Your task to perform on an android device: Open accessibility settings Image 0: 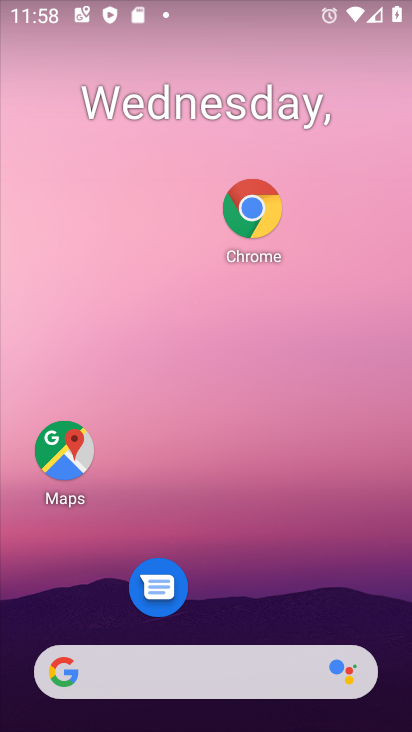
Step 0: drag from (232, 619) to (219, 9)
Your task to perform on an android device: Open accessibility settings Image 1: 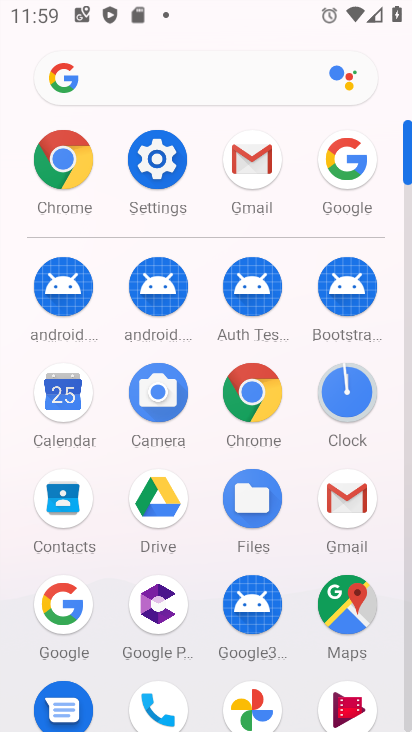
Step 1: click (167, 183)
Your task to perform on an android device: Open accessibility settings Image 2: 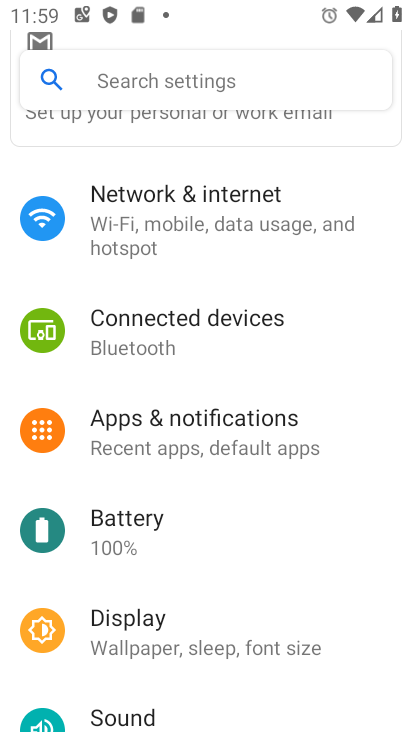
Step 2: drag from (183, 650) to (226, 295)
Your task to perform on an android device: Open accessibility settings Image 3: 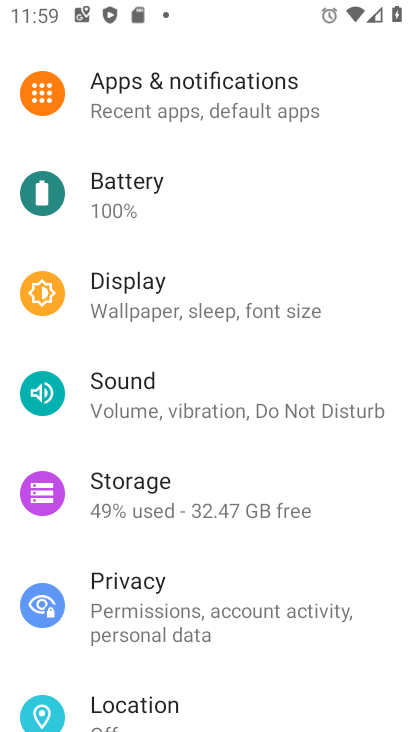
Step 3: drag from (154, 659) to (166, 394)
Your task to perform on an android device: Open accessibility settings Image 4: 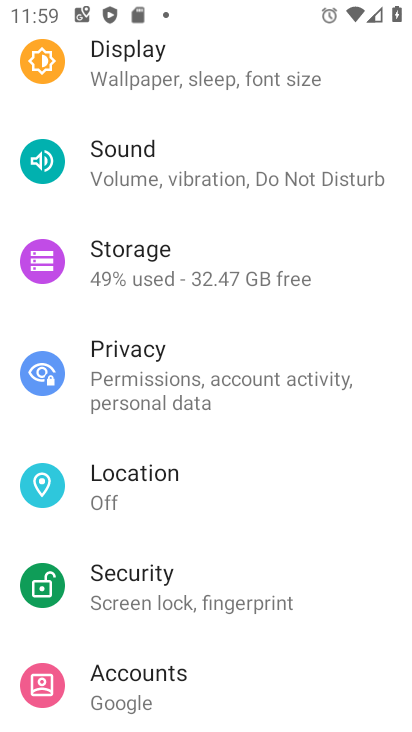
Step 4: drag from (179, 610) to (178, 252)
Your task to perform on an android device: Open accessibility settings Image 5: 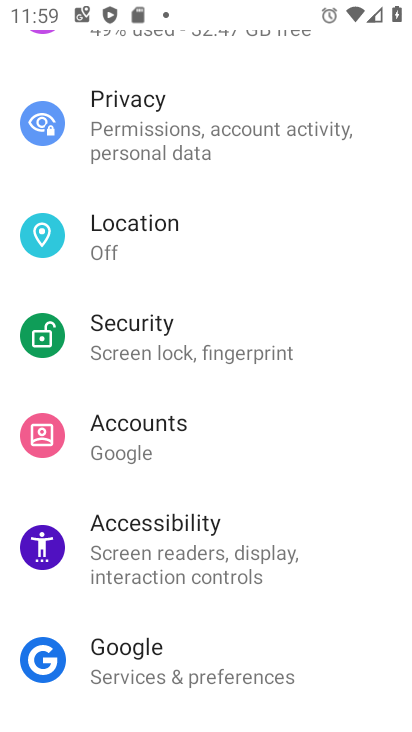
Step 5: click (163, 562)
Your task to perform on an android device: Open accessibility settings Image 6: 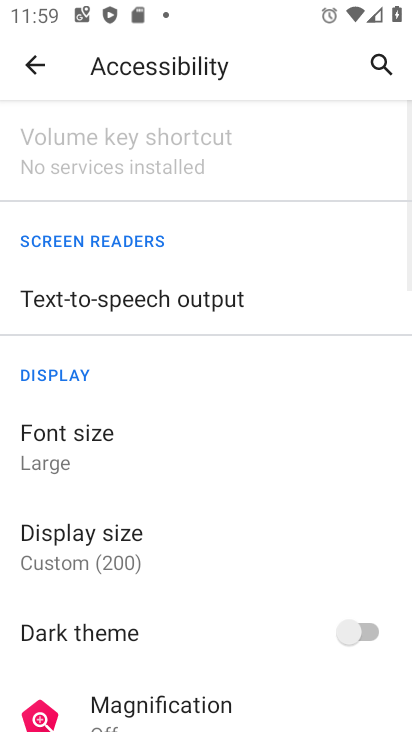
Step 6: task complete